Your task to perform on an android device: turn smart compose on in the gmail app Image 0: 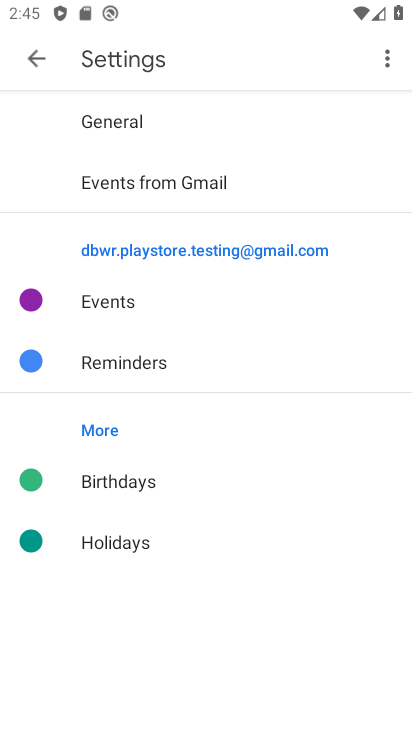
Step 0: press home button
Your task to perform on an android device: turn smart compose on in the gmail app Image 1: 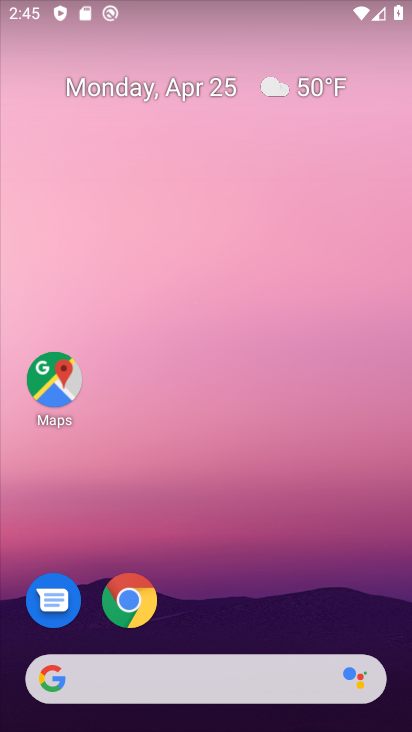
Step 1: drag from (207, 632) to (304, 0)
Your task to perform on an android device: turn smart compose on in the gmail app Image 2: 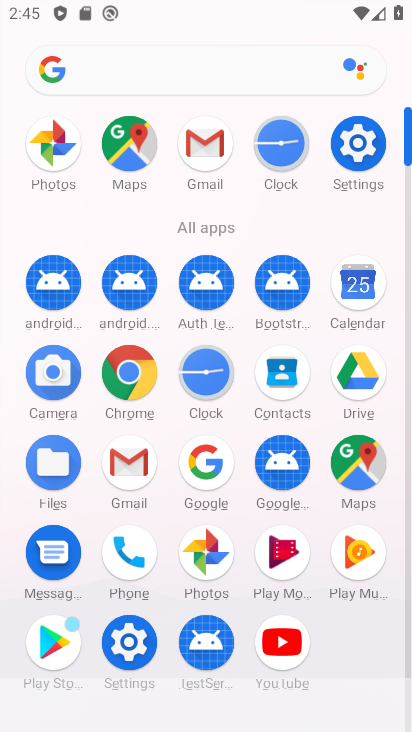
Step 2: click (200, 154)
Your task to perform on an android device: turn smart compose on in the gmail app Image 3: 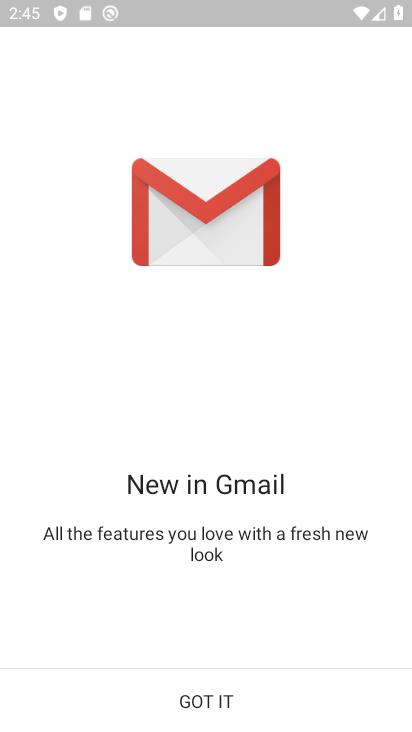
Step 3: click (202, 717)
Your task to perform on an android device: turn smart compose on in the gmail app Image 4: 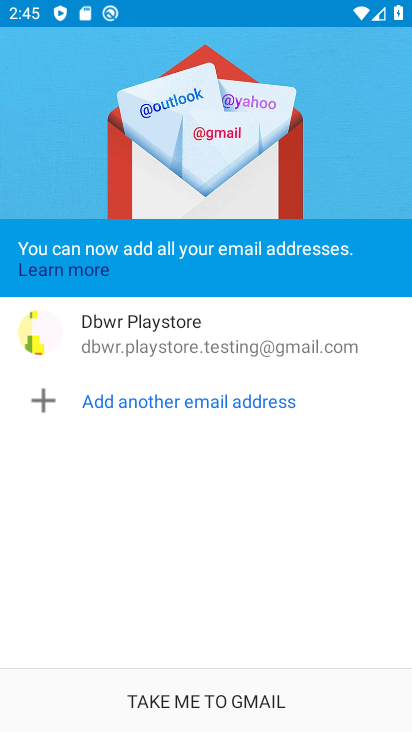
Step 4: click (204, 708)
Your task to perform on an android device: turn smart compose on in the gmail app Image 5: 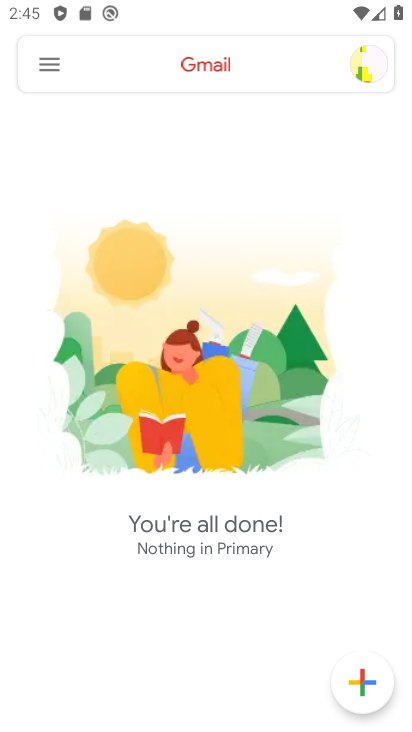
Step 5: click (55, 61)
Your task to perform on an android device: turn smart compose on in the gmail app Image 6: 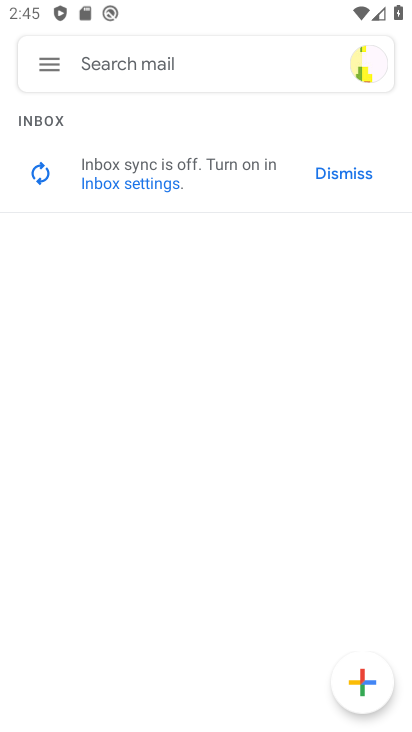
Step 6: click (42, 70)
Your task to perform on an android device: turn smart compose on in the gmail app Image 7: 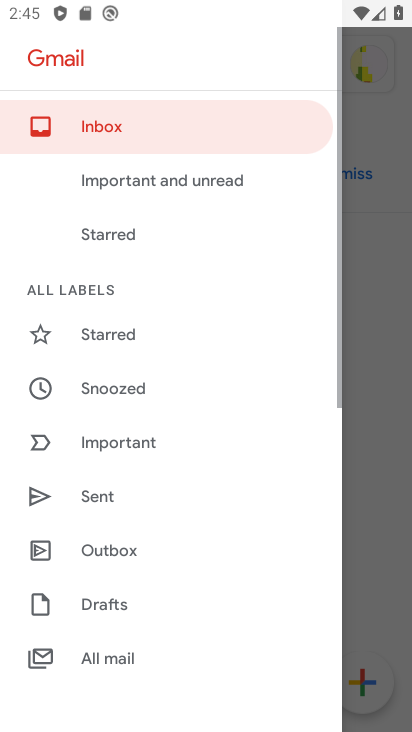
Step 7: drag from (111, 482) to (124, 156)
Your task to perform on an android device: turn smart compose on in the gmail app Image 8: 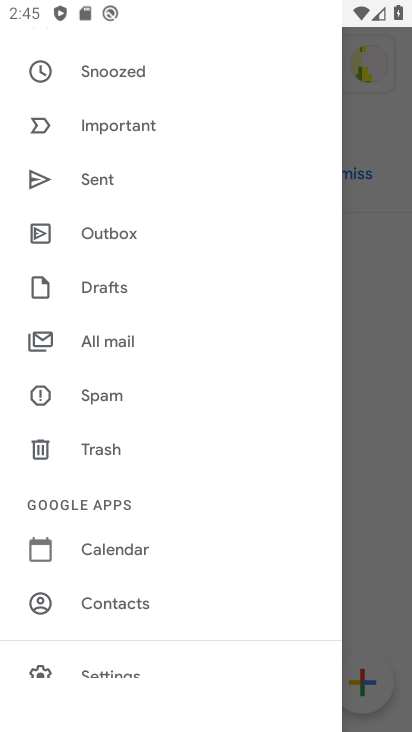
Step 8: drag from (116, 643) to (109, 467)
Your task to perform on an android device: turn smart compose on in the gmail app Image 9: 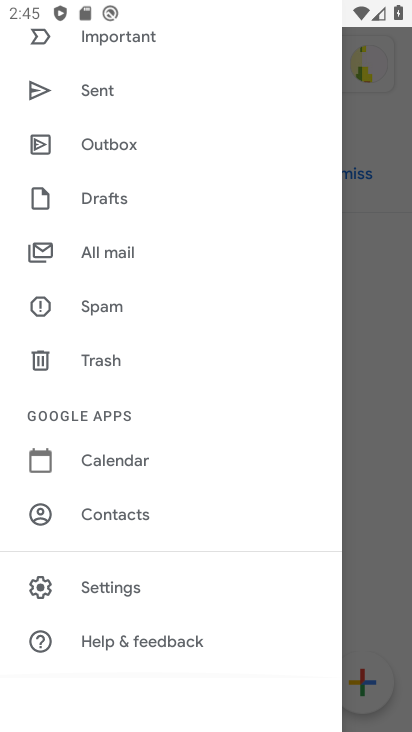
Step 9: click (87, 580)
Your task to perform on an android device: turn smart compose on in the gmail app Image 10: 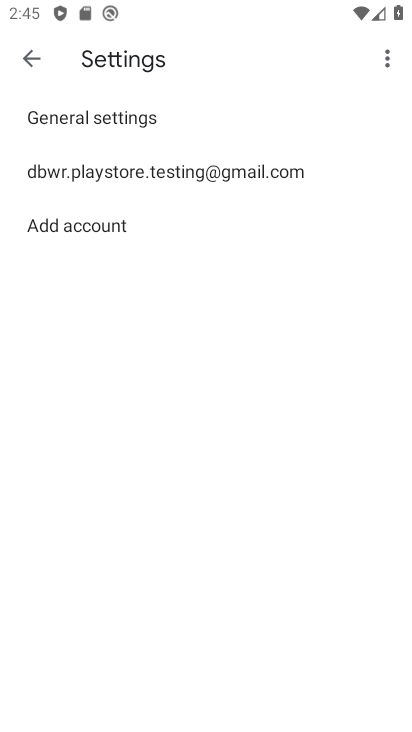
Step 10: click (92, 165)
Your task to perform on an android device: turn smart compose on in the gmail app Image 11: 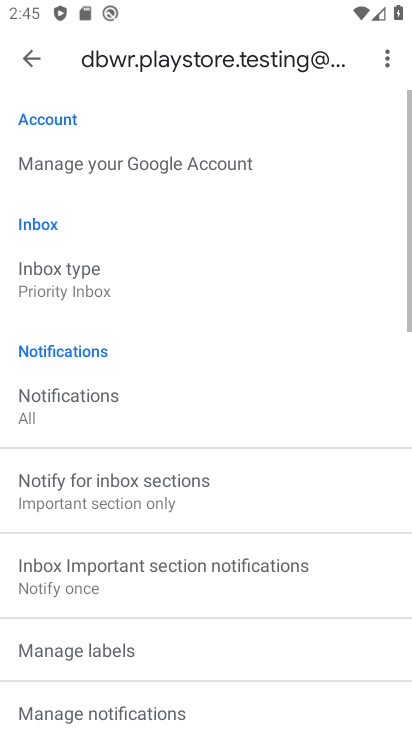
Step 11: drag from (155, 617) to (183, 395)
Your task to perform on an android device: turn smart compose on in the gmail app Image 12: 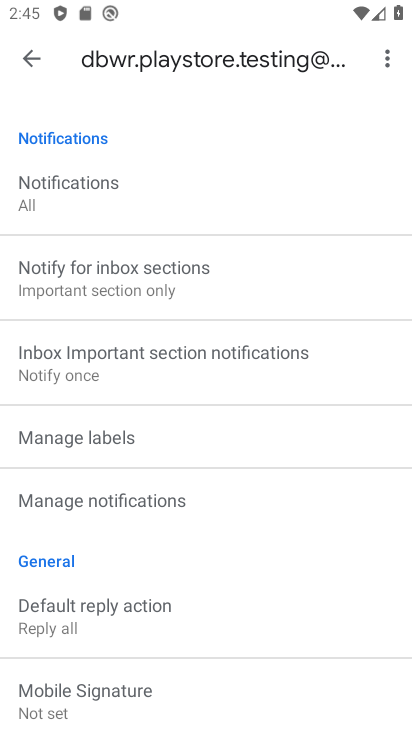
Step 12: drag from (201, 498) to (196, 119)
Your task to perform on an android device: turn smart compose on in the gmail app Image 13: 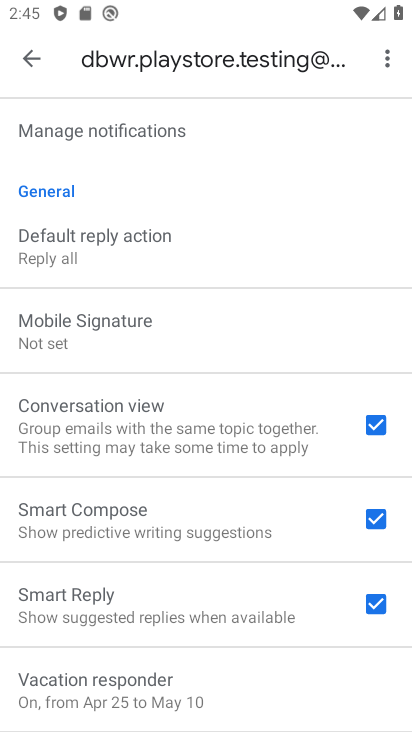
Step 13: click (366, 517)
Your task to perform on an android device: turn smart compose on in the gmail app Image 14: 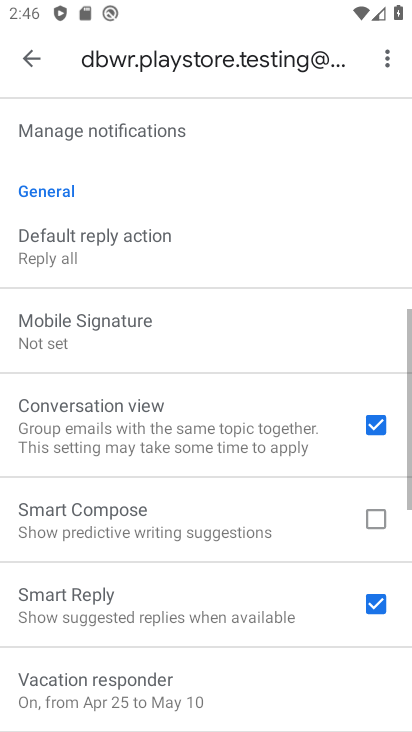
Step 14: click (367, 516)
Your task to perform on an android device: turn smart compose on in the gmail app Image 15: 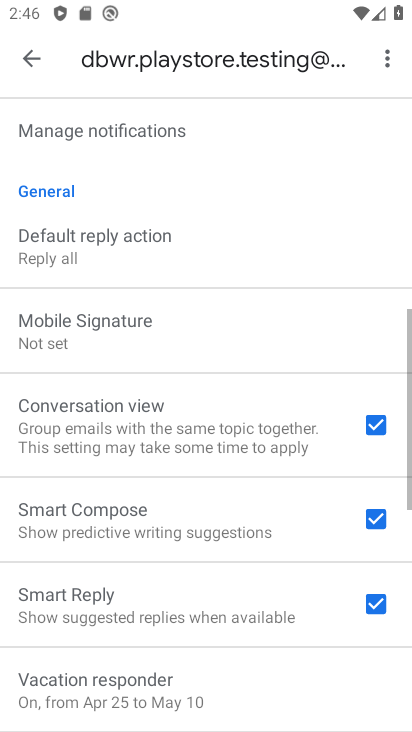
Step 15: task complete